Your task to perform on an android device: set default search engine in the chrome app Image 0: 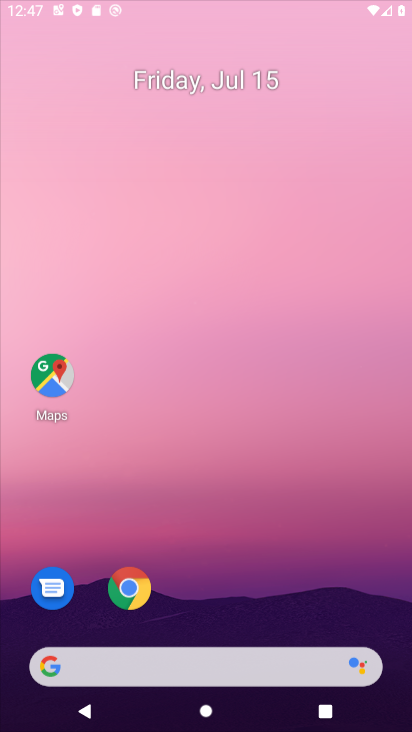
Step 0: click (91, 147)
Your task to perform on an android device: set default search engine in the chrome app Image 1: 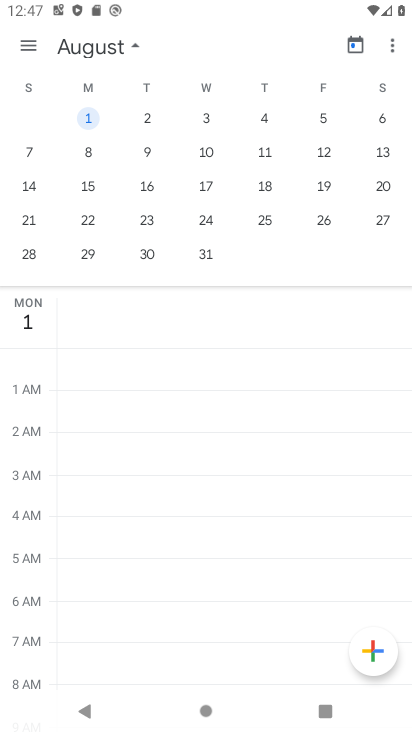
Step 1: press home button
Your task to perform on an android device: set default search engine in the chrome app Image 2: 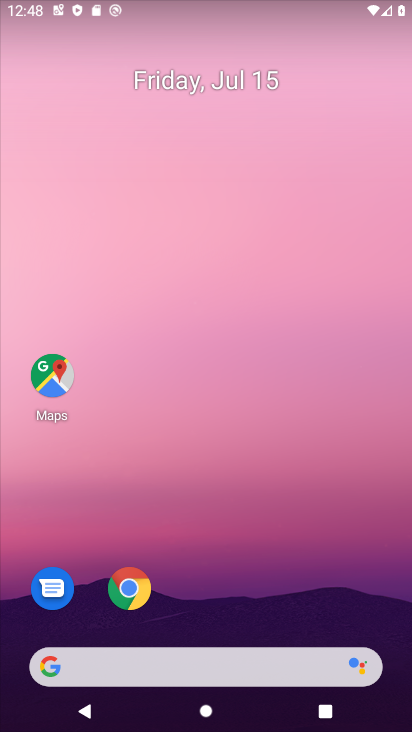
Step 2: drag from (138, 715) to (212, 42)
Your task to perform on an android device: set default search engine in the chrome app Image 3: 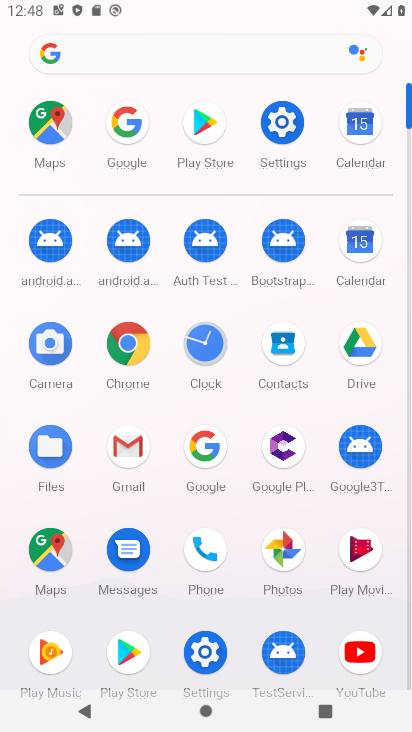
Step 3: click (126, 334)
Your task to perform on an android device: set default search engine in the chrome app Image 4: 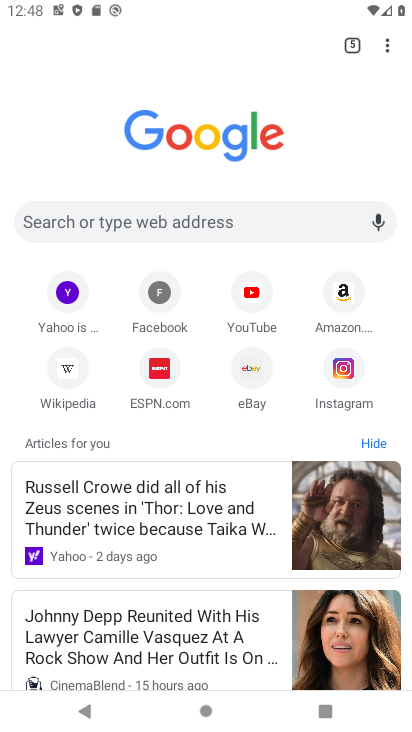
Step 4: click (389, 47)
Your task to perform on an android device: set default search engine in the chrome app Image 5: 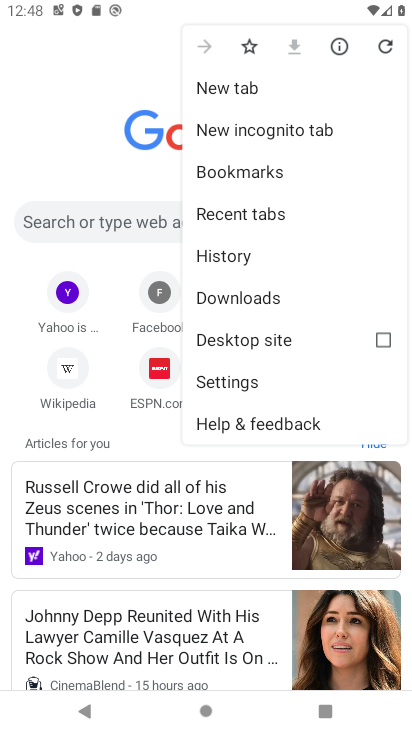
Step 5: click (236, 374)
Your task to perform on an android device: set default search engine in the chrome app Image 6: 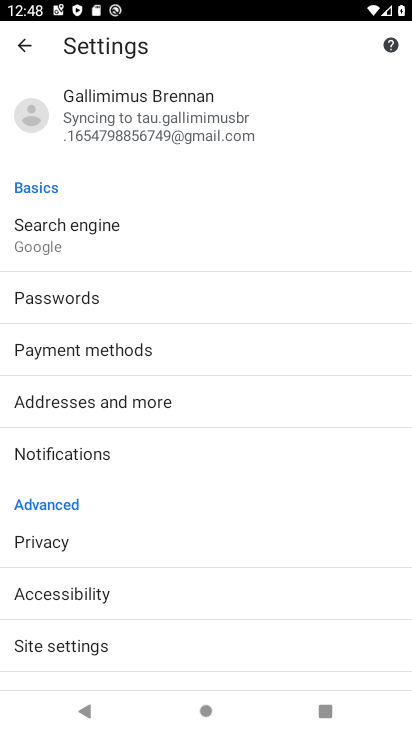
Step 6: click (102, 227)
Your task to perform on an android device: set default search engine in the chrome app Image 7: 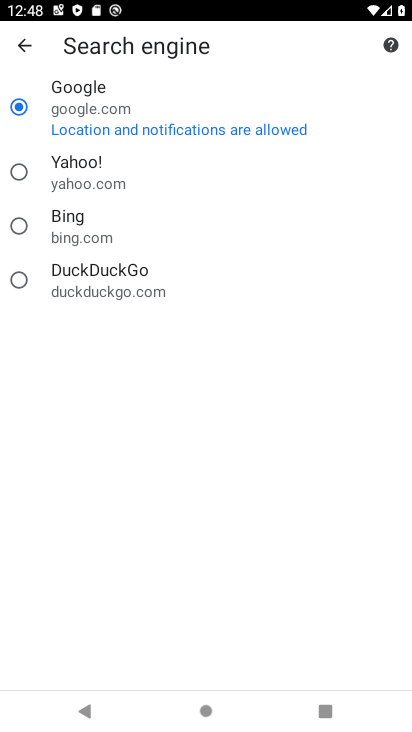
Step 7: task complete